Your task to perform on an android device: Toggle the flashlight Image 0: 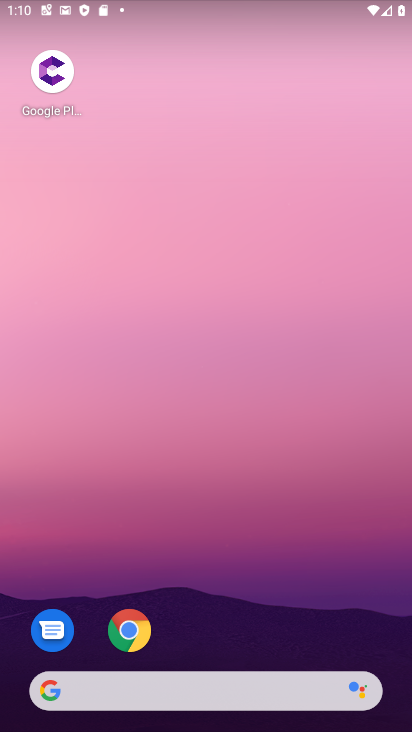
Step 0: drag from (397, 663) to (246, 73)
Your task to perform on an android device: Toggle the flashlight Image 1: 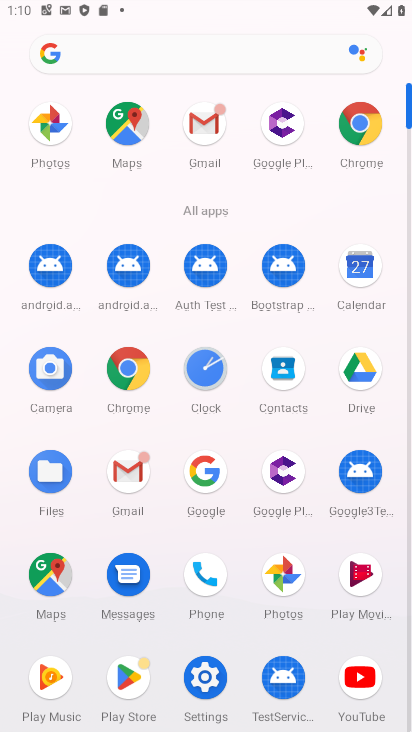
Step 1: click (209, 676)
Your task to perform on an android device: Toggle the flashlight Image 2: 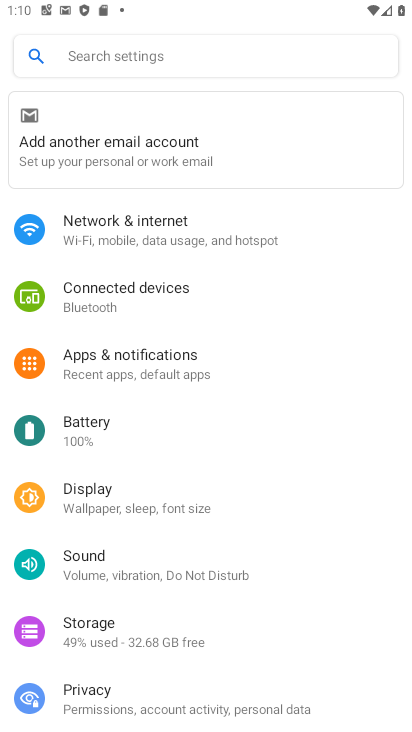
Step 2: drag from (322, 651) to (327, 384)
Your task to perform on an android device: Toggle the flashlight Image 3: 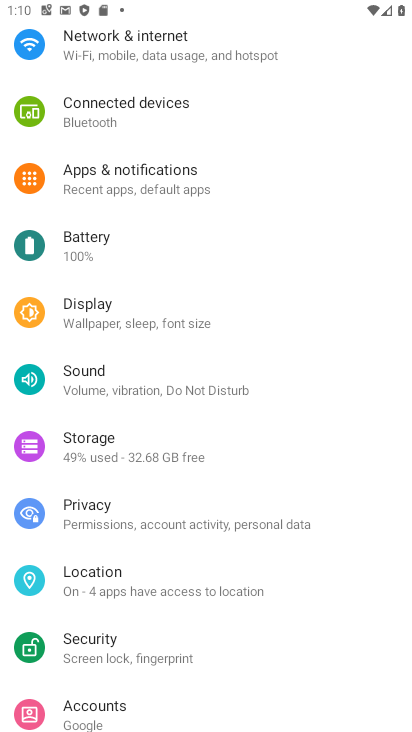
Step 3: click (101, 313)
Your task to perform on an android device: Toggle the flashlight Image 4: 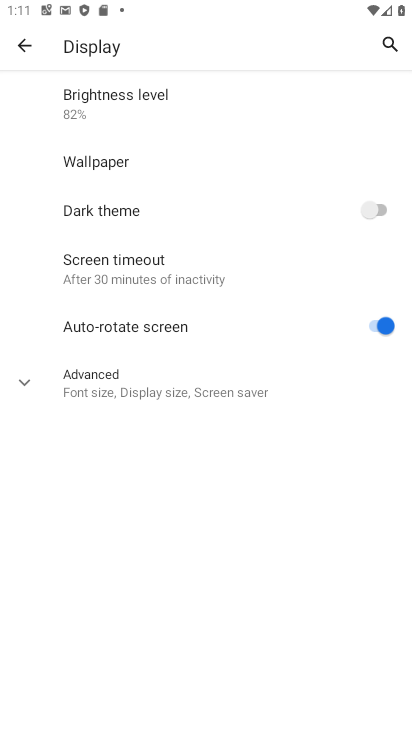
Step 4: task complete